Your task to perform on an android device: What's the weather like in Mexico City? Image 0: 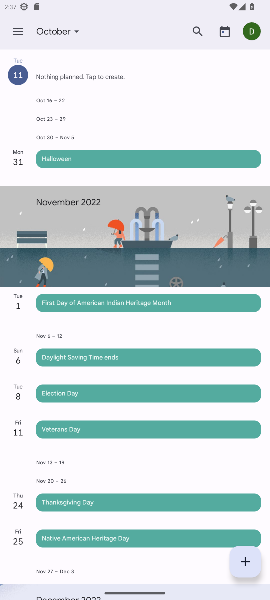
Step 0: press home button
Your task to perform on an android device: What's the weather like in Mexico City? Image 1: 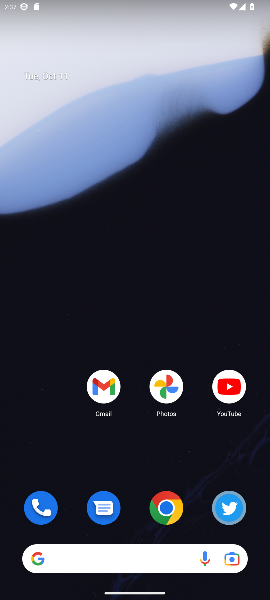
Step 1: click (174, 504)
Your task to perform on an android device: What's the weather like in Mexico City? Image 2: 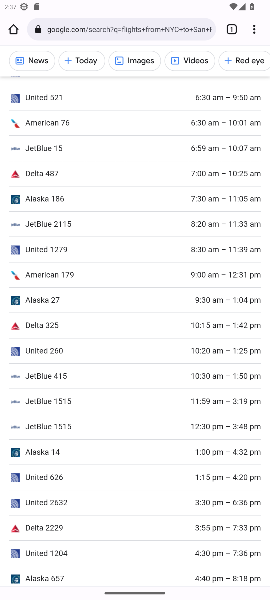
Step 2: click (156, 28)
Your task to perform on an android device: What's the weather like in Mexico City? Image 3: 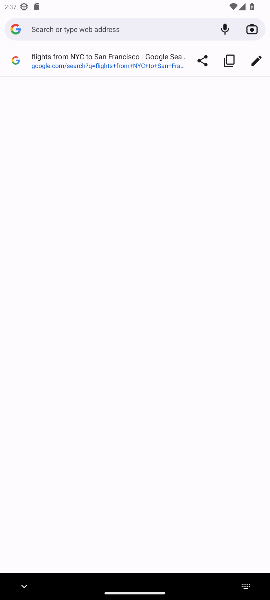
Step 3: type "weather like in Mexico City"
Your task to perform on an android device: What's the weather like in Mexico City? Image 4: 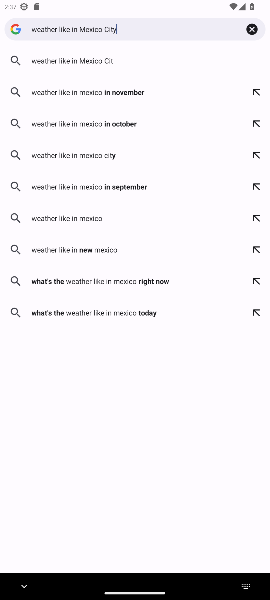
Step 4: type ""
Your task to perform on an android device: What's the weather like in Mexico City? Image 5: 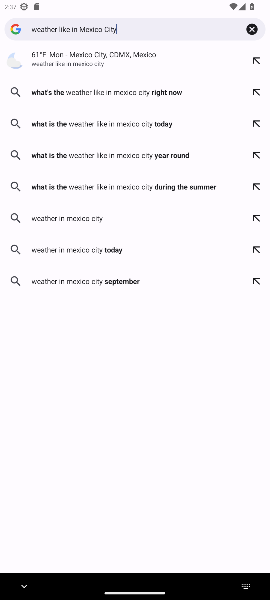
Step 5: type ""
Your task to perform on an android device: What's the weather like in Mexico City? Image 6: 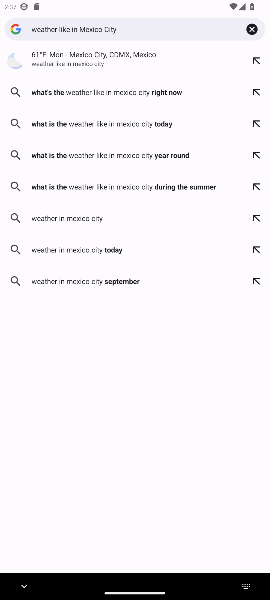
Step 6: press enter
Your task to perform on an android device: What's the weather like in Mexico City? Image 7: 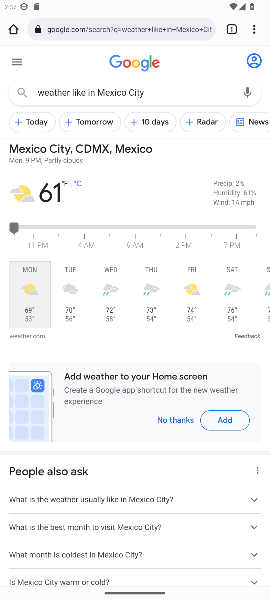
Step 7: task complete